Your task to perform on an android device: Go to Google Image 0: 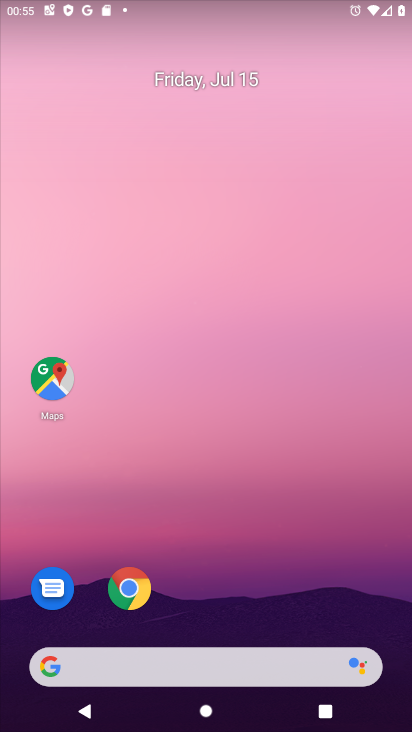
Step 0: press home button
Your task to perform on an android device: Go to Google Image 1: 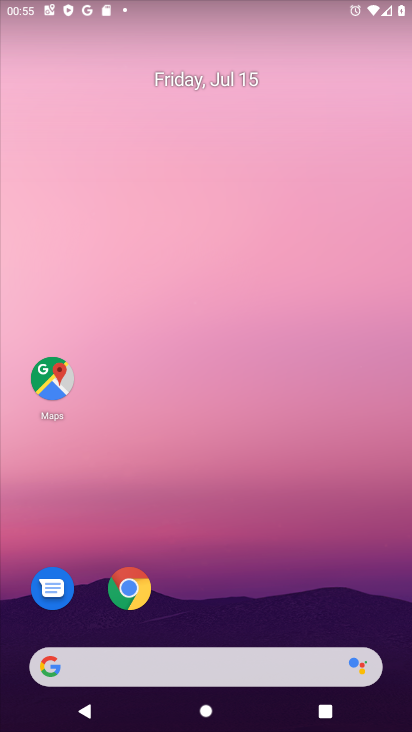
Step 1: drag from (164, 673) to (273, 89)
Your task to perform on an android device: Go to Google Image 2: 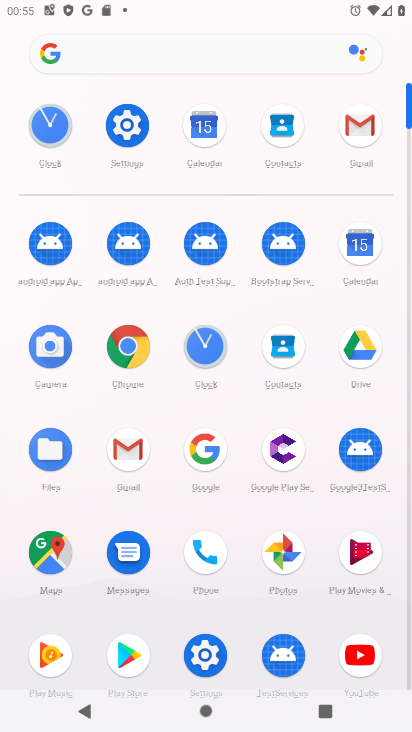
Step 2: click (212, 451)
Your task to perform on an android device: Go to Google Image 3: 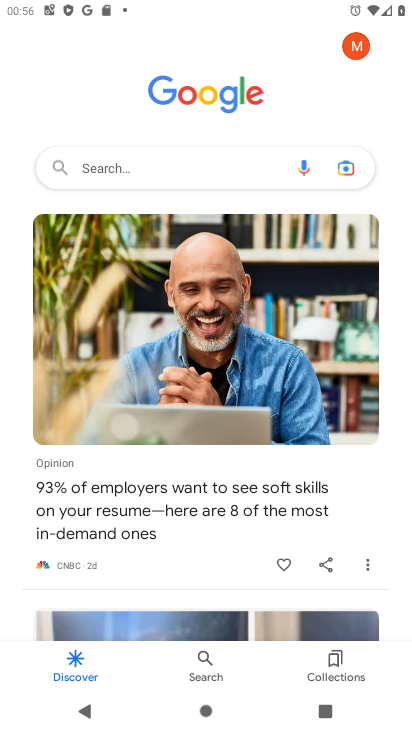
Step 3: task complete